Your task to perform on an android device: see sites visited before in the chrome app Image 0: 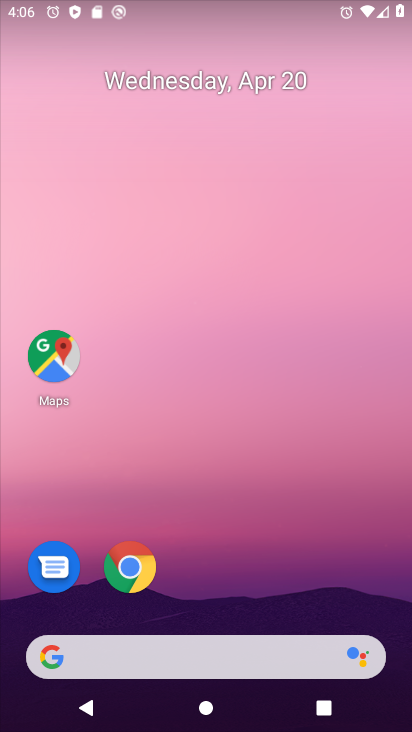
Step 0: click (123, 560)
Your task to perform on an android device: see sites visited before in the chrome app Image 1: 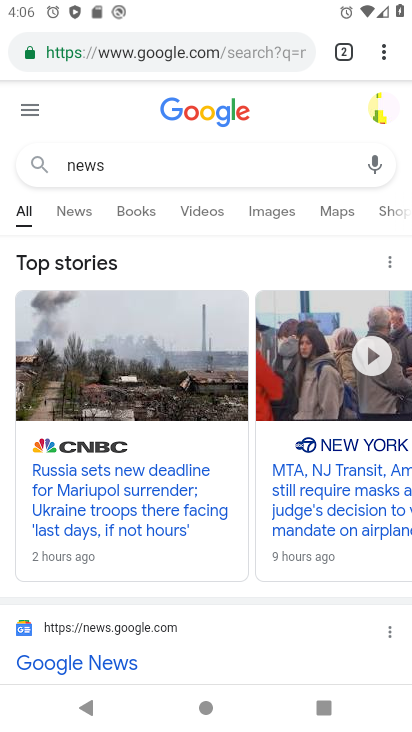
Step 1: click (379, 54)
Your task to perform on an android device: see sites visited before in the chrome app Image 2: 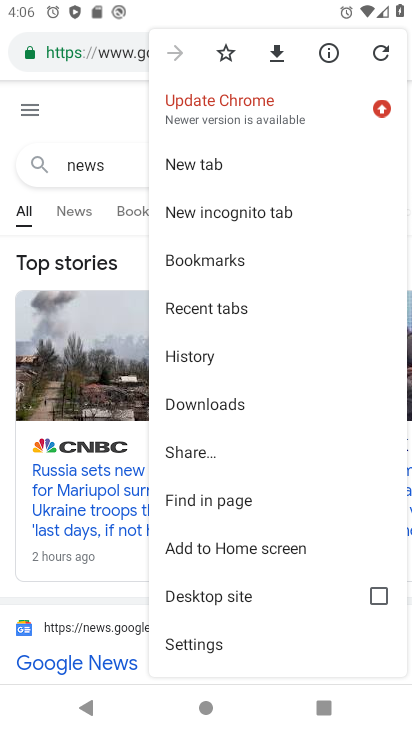
Step 2: click (250, 358)
Your task to perform on an android device: see sites visited before in the chrome app Image 3: 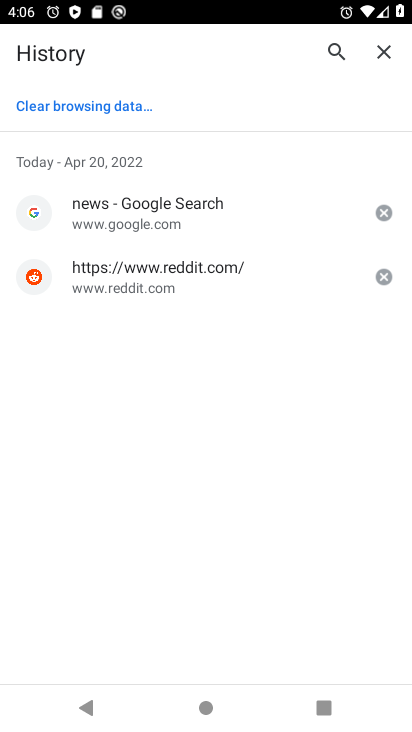
Step 3: task complete